Your task to perform on an android device: Open the phone app and click the voicemail tab. Image 0: 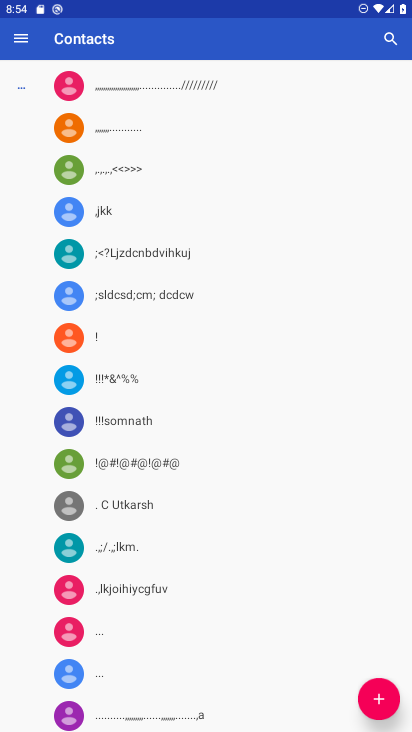
Step 0: press home button
Your task to perform on an android device: Open the phone app and click the voicemail tab. Image 1: 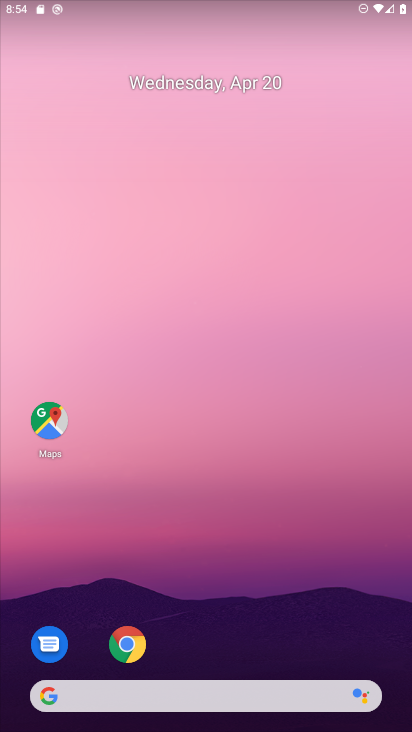
Step 1: drag from (291, 452) to (252, 70)
Your task to perform on an android device: Open the phone app and click the voicemail tab. Image 2: 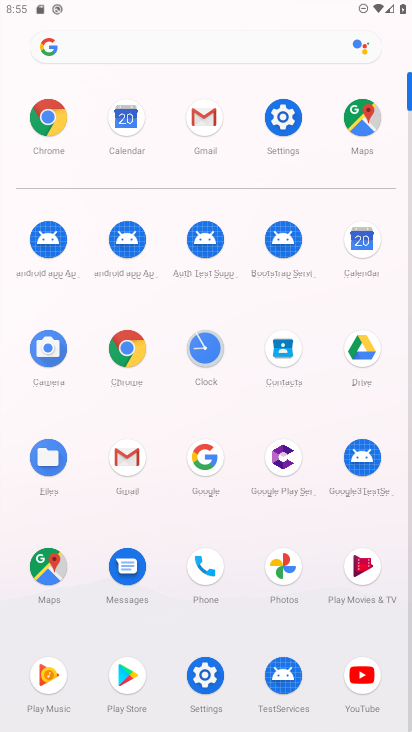
Step 2: click (209, 569)
Your task to perform on an android device: Open the phone app and click the voicemail tab. Image 3: 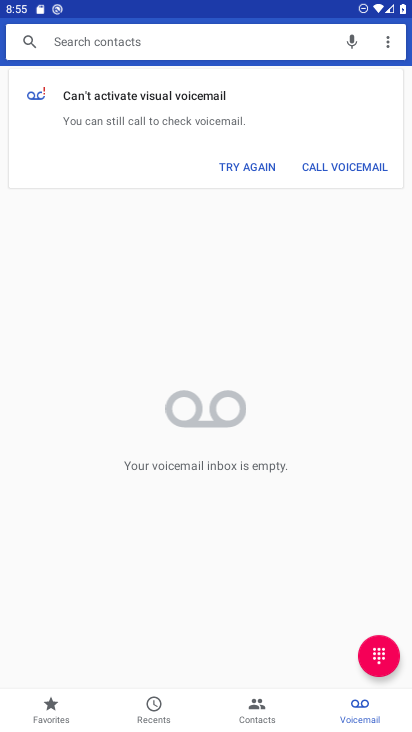
Step 3: task complete